Your task to perform on an android device: toggle location history Image 0: 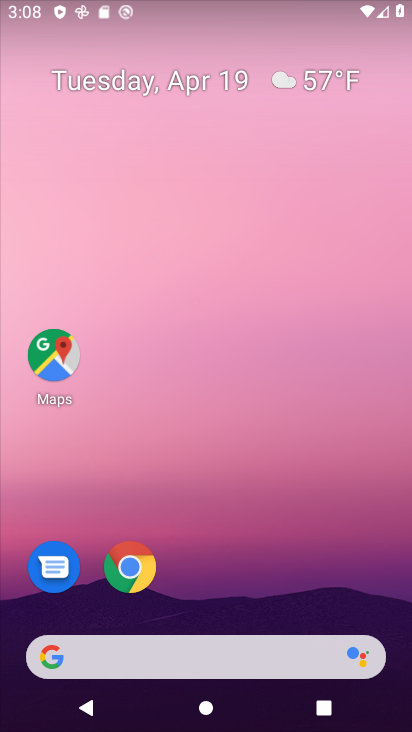
Step 0: drag from (387, 565) to (402, 98)
Your task to perform on an android device: toggle location history Image 1: 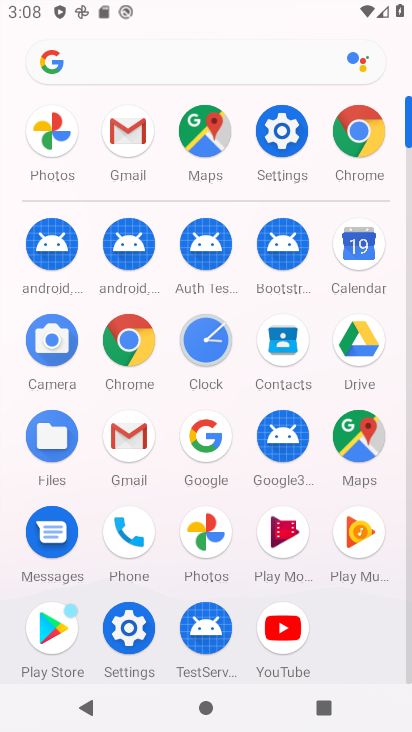
Step 1: click (289, 140)
Your task to perform on an android device: toggle location history Image 2: 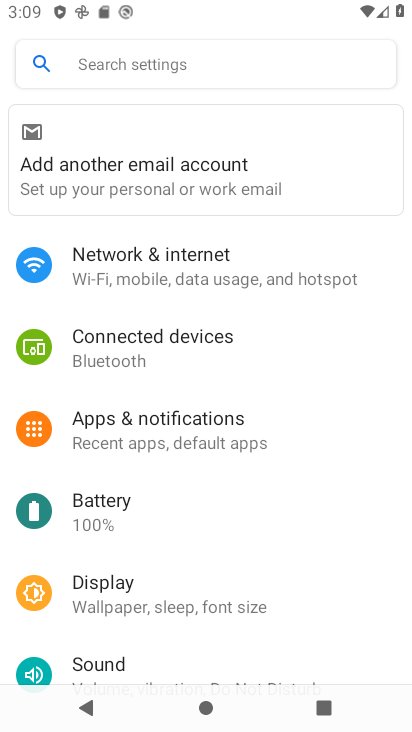
Step 2: drag from (345, 538) to (363, 363)
Your task to perform on an android device: toggle location history Image 3: 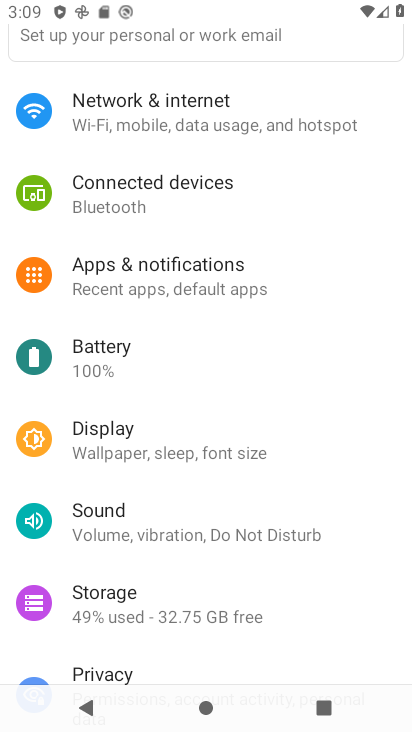
Step 3: drag from (352, 596) to (365, 399)
Your task to perform on an android device: toggle location history Image 4: 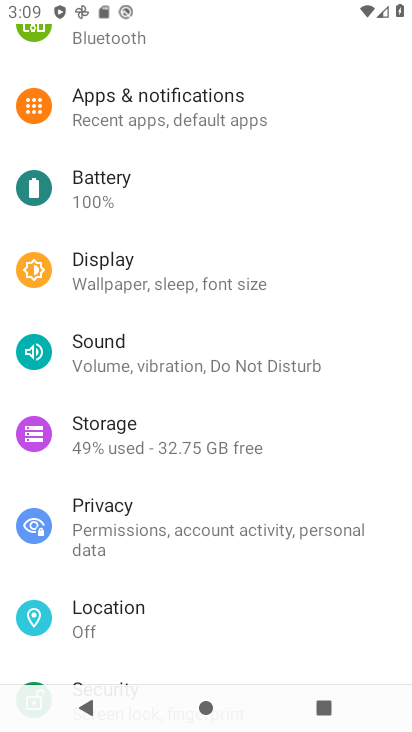
Step 4: drag from (351, 581) to (378, 369)
Your task to perform on an android device: toggle location history Image 5: 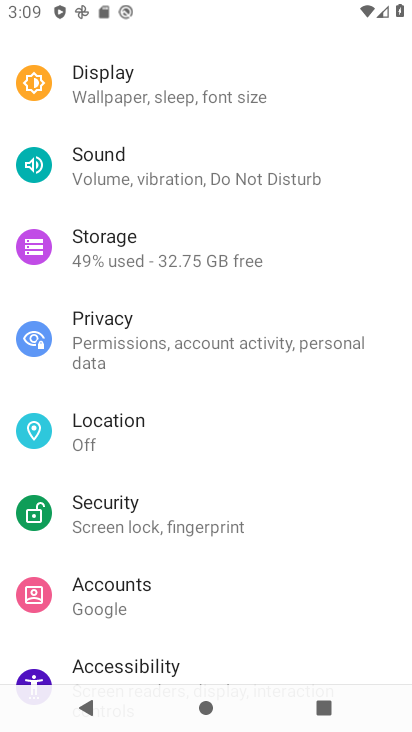
Step 5: click (96, 429)
Your task to perform on an android device: toggle location history Image 6: 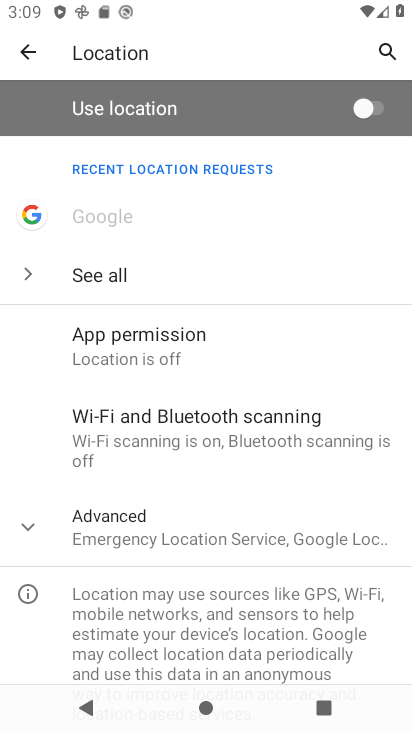
Step 6: click (255, 532)
Your task to perform on an android device: toggle location history Image 7: 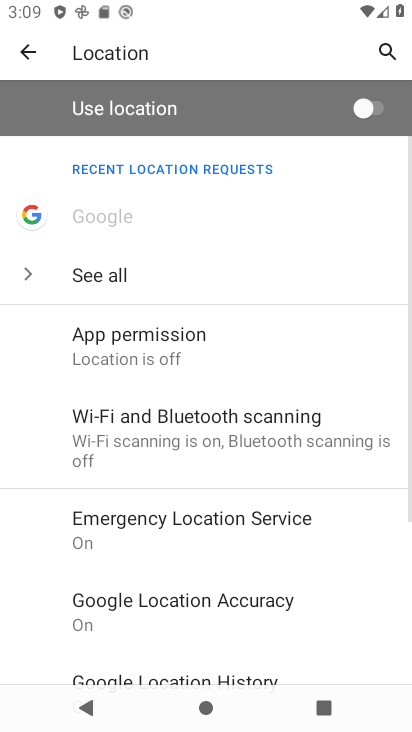
Step 7: drag from (363, 610) to (384, 294)
Your task to perform on an android device: toggle location history Image 8: 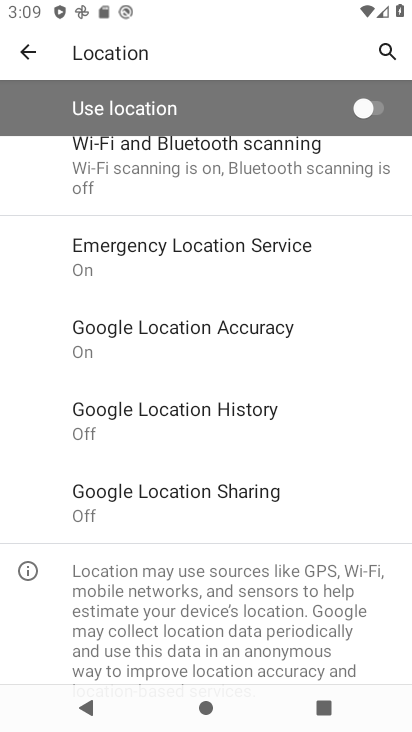
Step 8: click (175, 414)
Your task to perform on an android device: toggle location history Image 9: 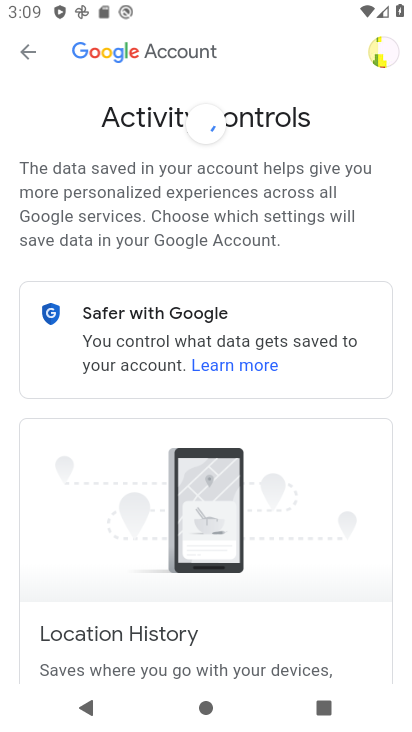
Step 9: drag from (298, 507) to (328, 194)
Your task to perform on an android device: toggle location history Image 10: 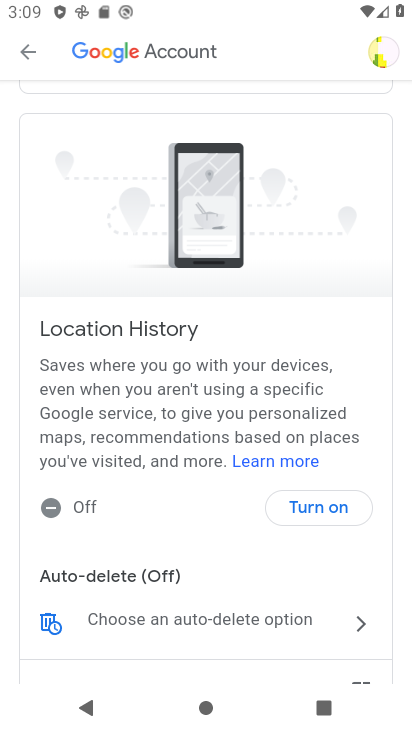
Step 10: click (328, 502)
Your task to perform on an android device: toggle location history Image 11: 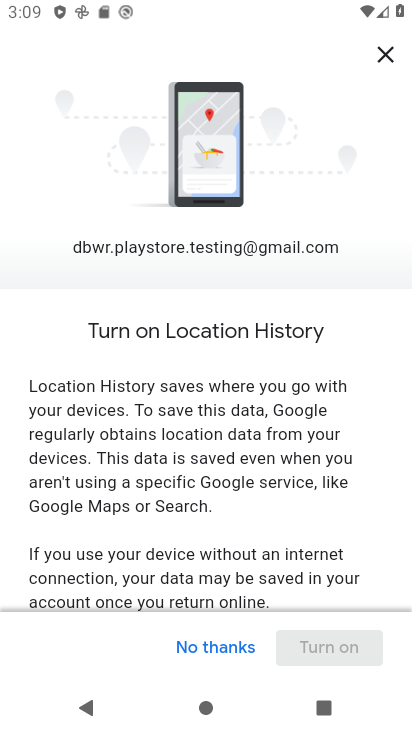
Step 11: drag from (256, 540) to (284, 324)
Your task to perform on an android device: toggle location history Image 12: 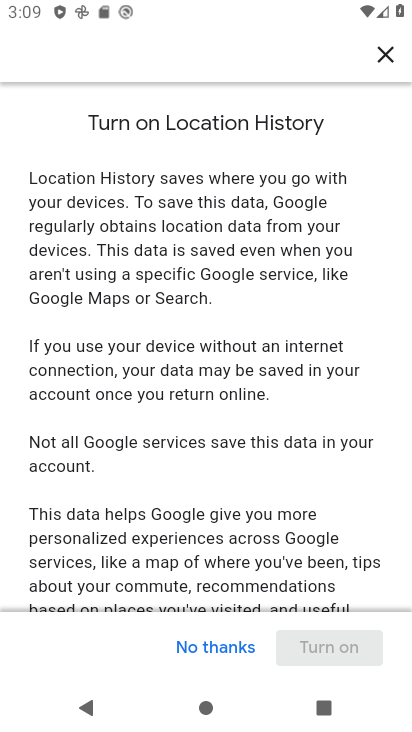
Step 12: drag from (358, 495) to (359, 312)
Your task to perform on an android device: toggle location history Image 13: 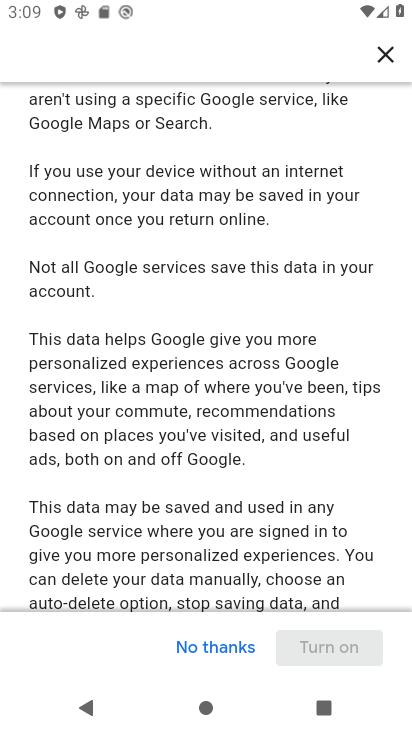
Step 13: drag from (384, 506) to (393, 316)
Your task to perform on an android device: toggle location history Image 14: 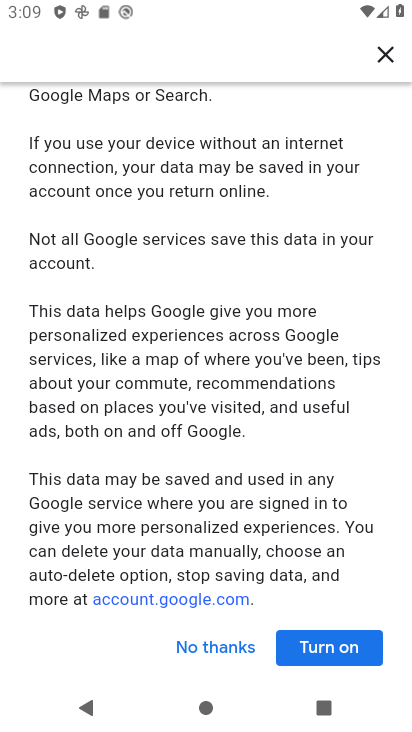
Step 14: click (329, 648)
Your task to perform on an android device: toggle location history Image 15: 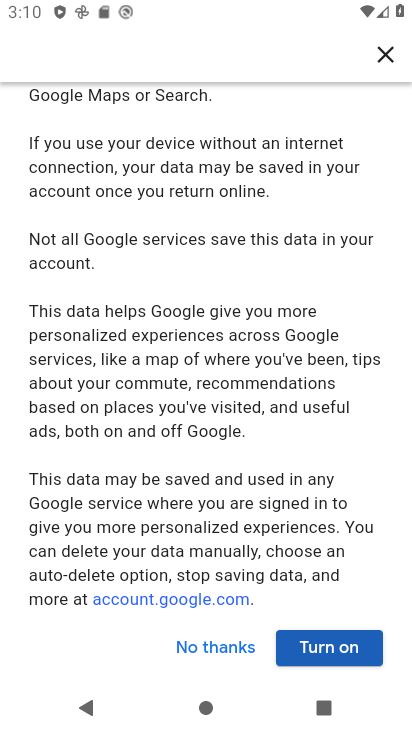
Step 15: click (333, 644)
Your task to perform on an android device: toggle location history Image 16: 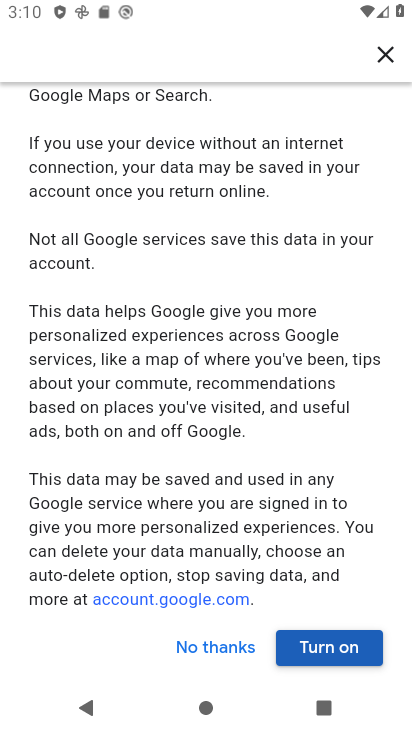
Step 16: click (341, 653)
Your task to perform on an android device: toggle location history Image 17: 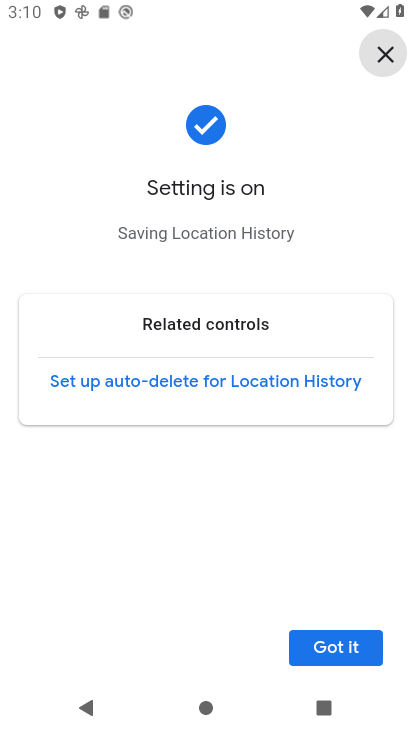
Step 17: task complete